Your task to perform on an android device: Is it going to rain this weekend? Image 0: 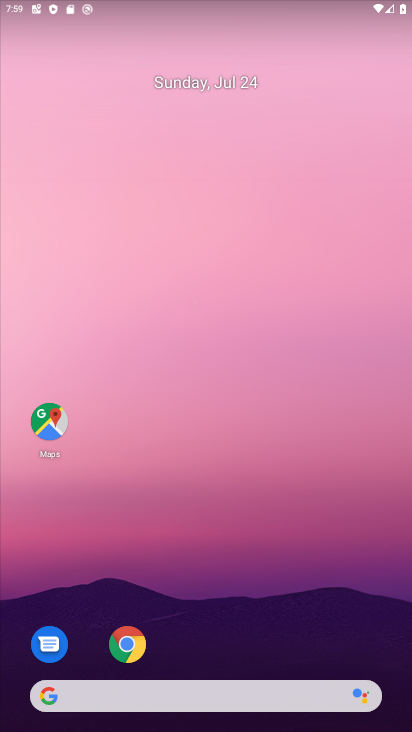
Step 0: drag from (281, 625) to (287, 222)
Your task to perform on an android device: Is it going to rain this weekend? Image 1: 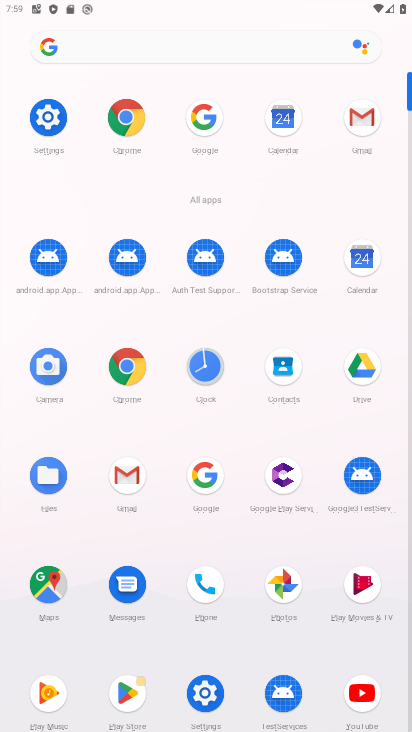
Step 1: drag from (220, 156) to (246, 728)
Your task to perform on an android device: Is it going to rain this weekend? Image 2: 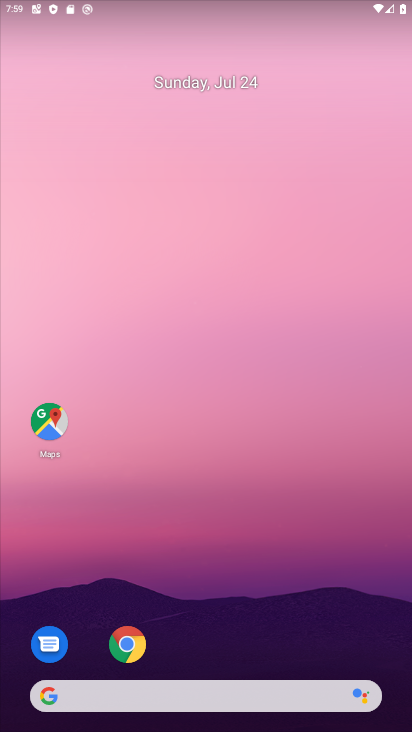
Step 2: drag from (22, 327) to (383, 235)
Your task to perform on an android device: Is it going to rain this weekend? Image 3: 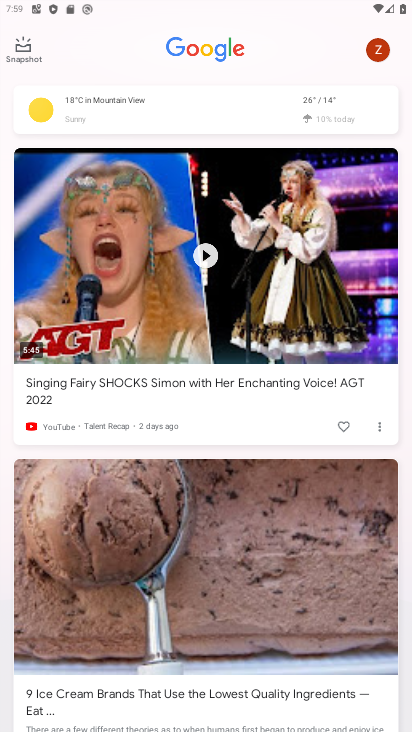
Step 3: click (289, 104)
Your task to perform on an android device: Is it going to rain this weekend? Image 4: 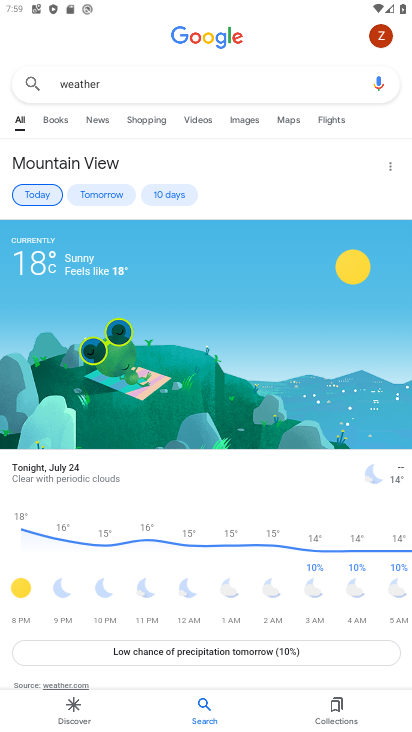
Step 4: click (175, 189)
Your task to perform on an android device: Is it going to rain this weekend? Image 5: 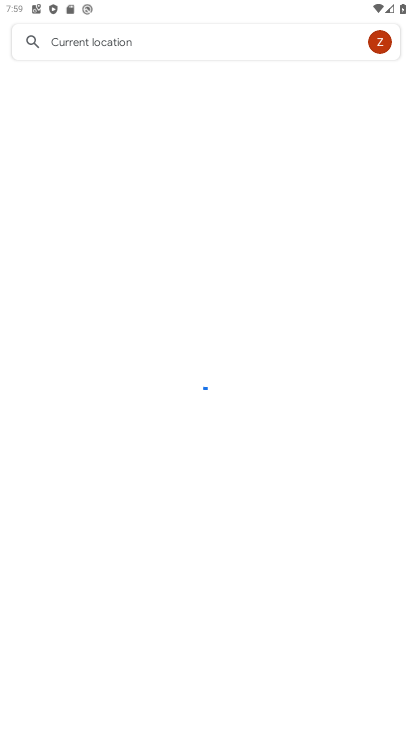
Step 5: click (175, 189)
Your task to perform on an android device: Is it going to rain this weekend? Image 6: 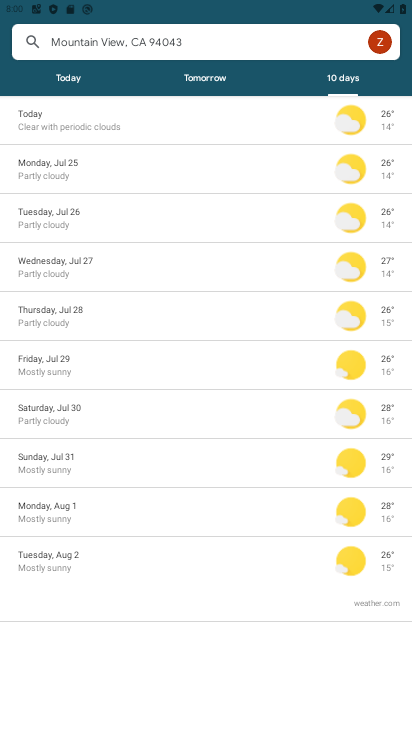
Step 6: click (283, 420)
Your task to perform on an android device: Is it going to rain this weekend? Image 7: 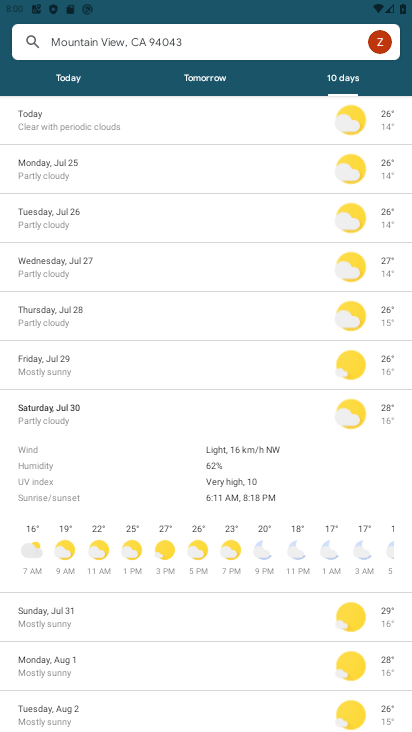
Step 7: task complete